Your task to perform on an android device: Do I have any events this weekend? Image 0: 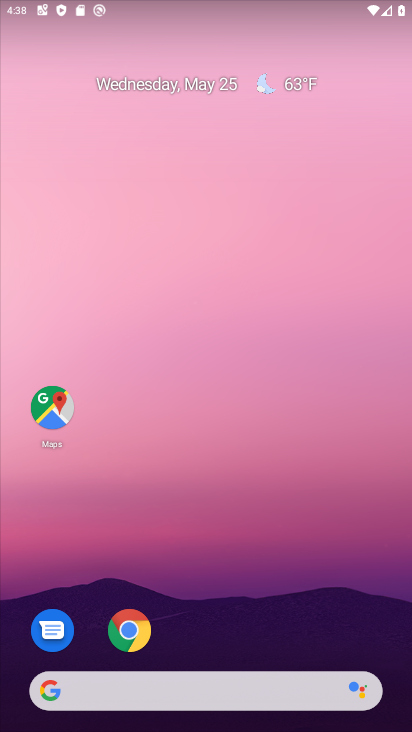
Step 0: drag from (195, 516) to (255, 83)
Your task to perform on an android device: Do I have any events this weekend? Image 1: 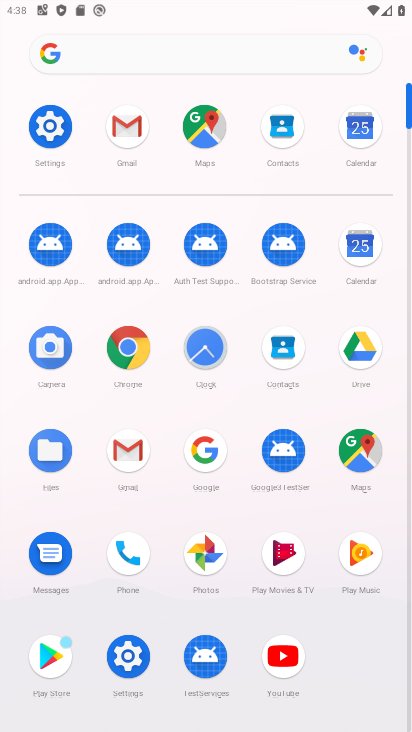
Step 1: click (359, 242)
Your task to perform on an android device: Do I have any events this weekend? Image 2: 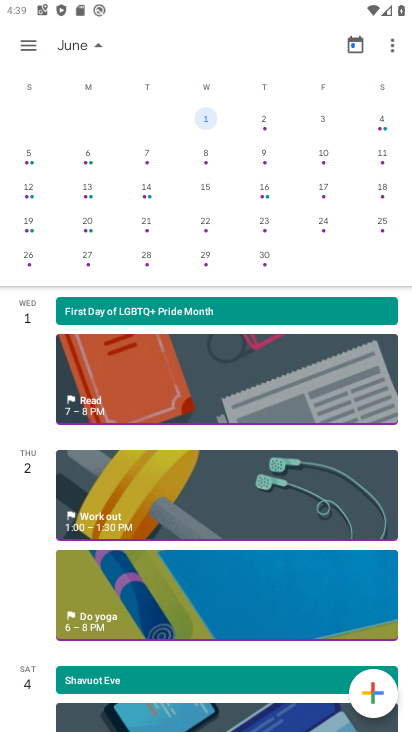
Step 2: click (79, 49)
Your task to perform on an android device: Do I have any events this weekend? Image 3: 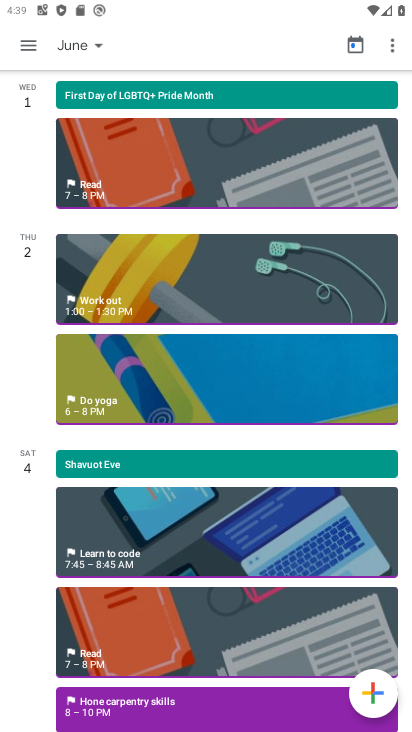
Step 3: drag from (42, 222) to (310, 205)
Your task to perform on an android device: Do I have any events this weekend? Image 4: 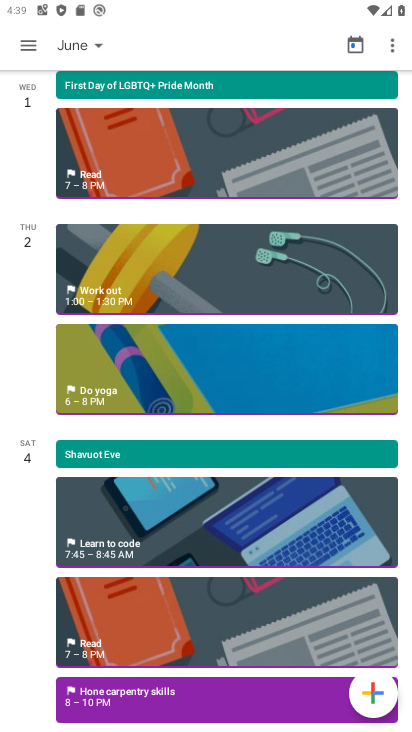
Step 4: click (82, 43)
Your task to perform on an android device: Do I have any events this weekend? Image 5: 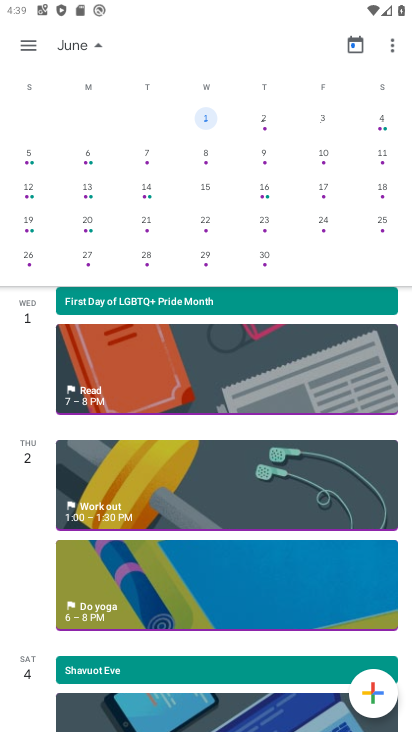
Step 5: drag from (30, 146) to (405, 165)
Your task to perform on an android device: Do I have any events this weekend? Image 6: 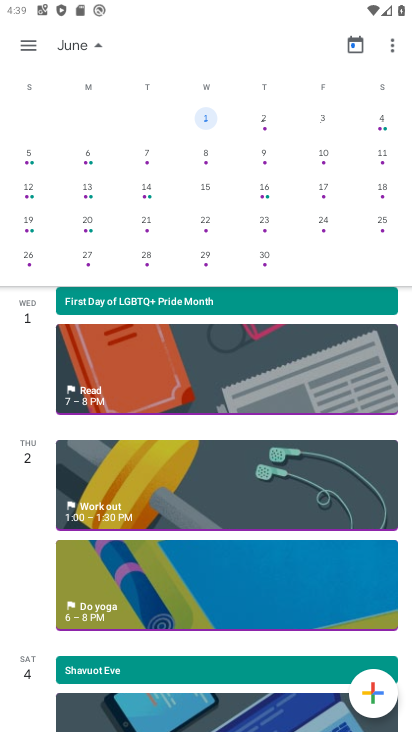
Step 6: drag from (23, 196) to (370, 188)
Your task to perform on an android device: Do I have any events this weekend? Image 7: 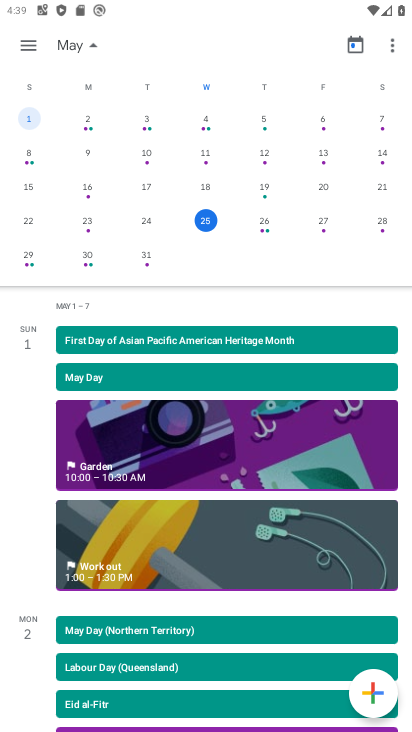
Step 7: click (200, 223)
Your task to perform on an android device: Do I have any events this weekend? Image 8: 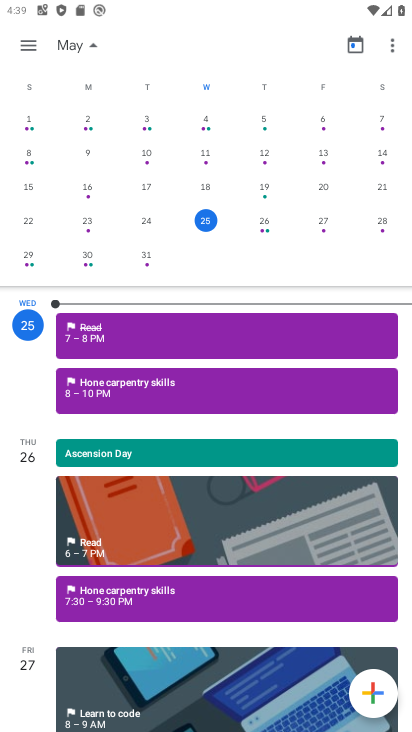
Step 8: drag from (184, 659) to (182, 228)
Your task to perform on an android device: Do I have any events this weekend? Image 9: 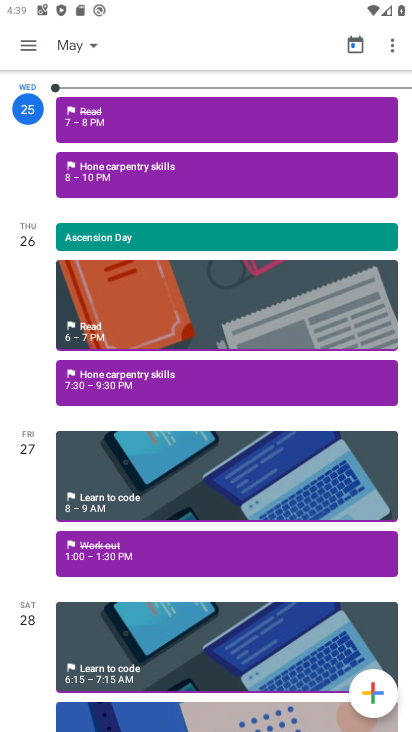
Step 9: drag from (156, 622) to (266, 128)
Your task to perform on an android device: Do I have any events this weekend? Image 10: 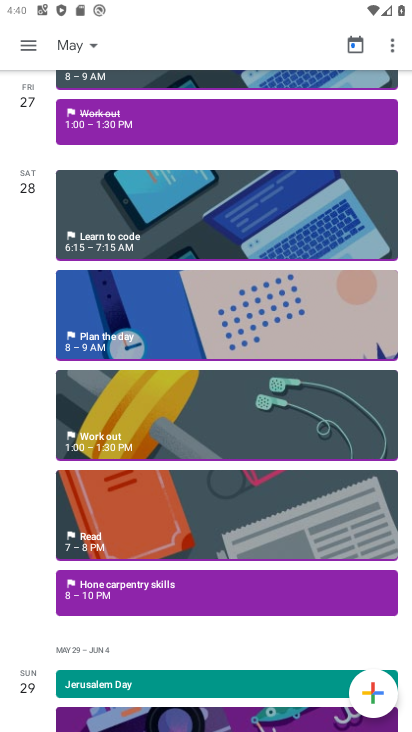
Step 10: click (130, 695)
Your task to perform on an android device: Do I have any events this weekend? Image 11: 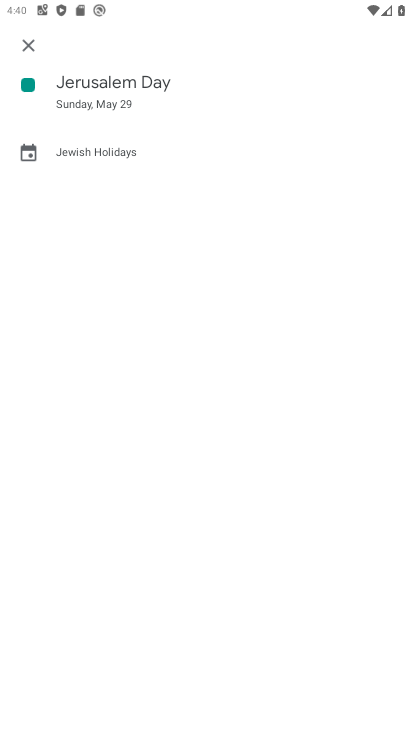
Step 11: task complete